Your task to perform on an android device: Go to ESPN.com Image 0: 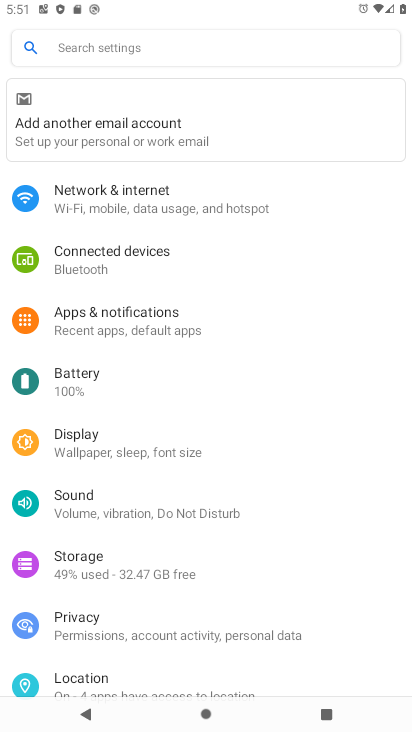
Step 0: press home button
Your task to perform on an android device: Go to ESPN.com Image 1: 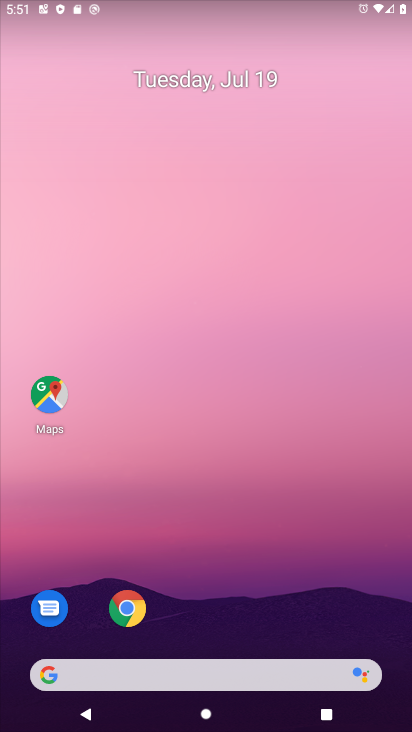
Step 1: drag from (241, 481) to (289, 0)
Your task to perform on an android device: Go to ESPN.com Image 2: 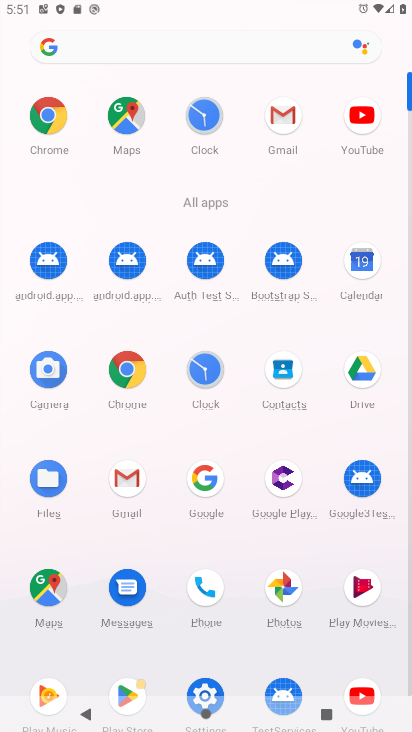
Step 2: click (125, 371)
Your task to perform on an android device: Go to ESPN.com Image 3: 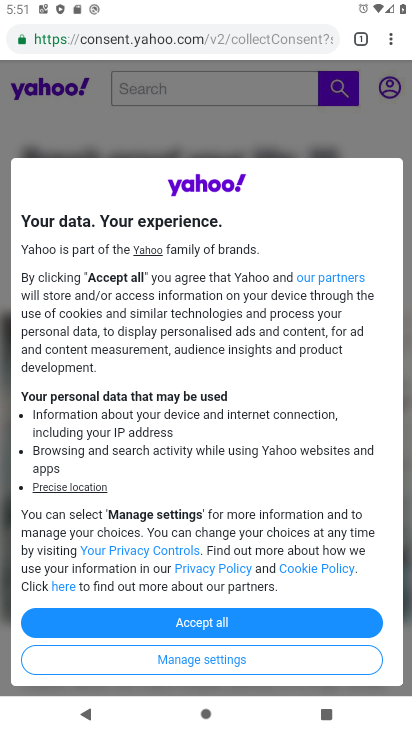
Step 3: click (195, 40)
Your task to perform on an android device: Go to ESPN.com Image 4: 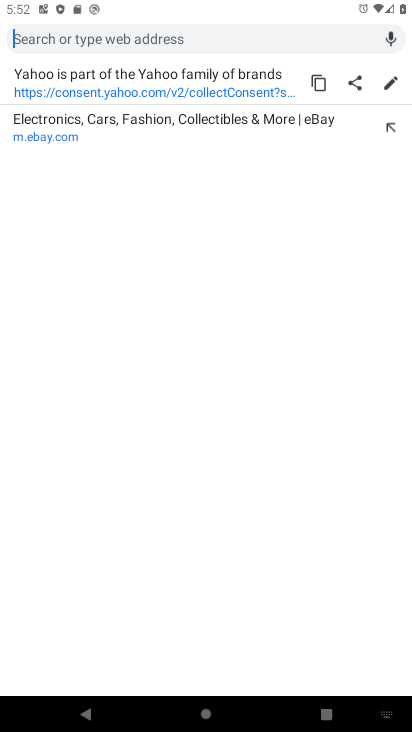
Step 4: type "espn.com"
Your task to perform on an android device: Go to ESPN.com Image 5: 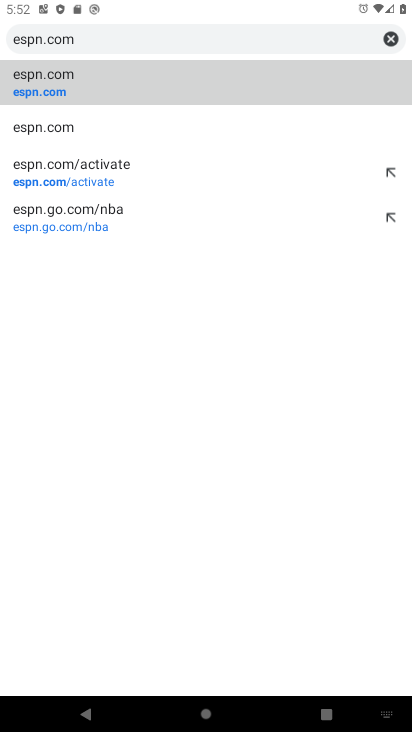
Step 5: click (106, 80)
Your task to perform on an android device: Go to ESPN.com Image 6: 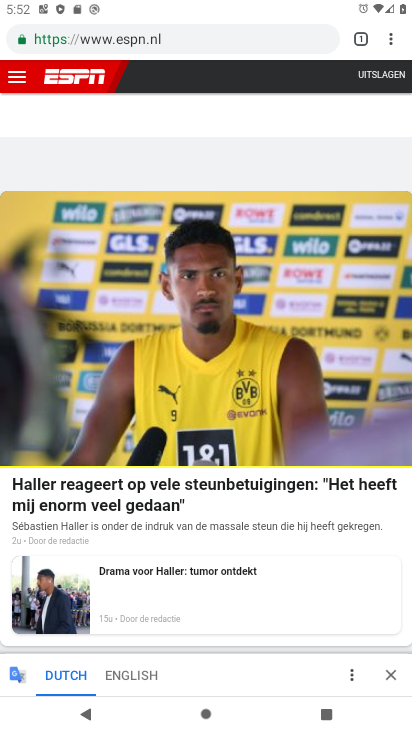
Step 6: task complete